Your task to perform on an android device: View the shopping cart on amazon.com. Search for usb-b on amazon.com, select the first entry, add it to the cart, then select checkout. Image 0: 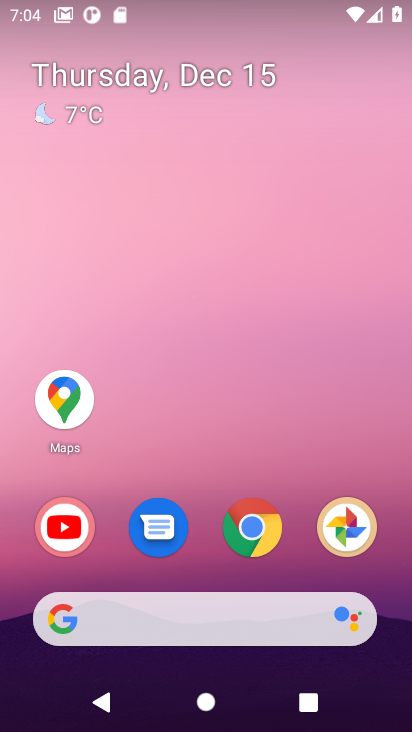
Step 0: click (227, 615)
Your task to perform on an android device: View the shopping cart on amazon.com. Search for usb-b on amazon.com, select the first entry, add it to the cart, then select checkout. Image 1: 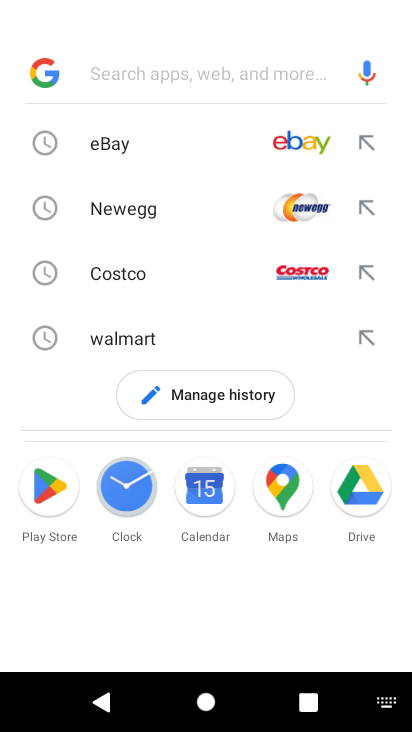
Step 1: click (204, 615)
Your task to perform on an android device: View the shopping cart on amazon.com. Search for usb-b on amazon.com, select the first entry, add it to the cart, then select checkout. Image 2: 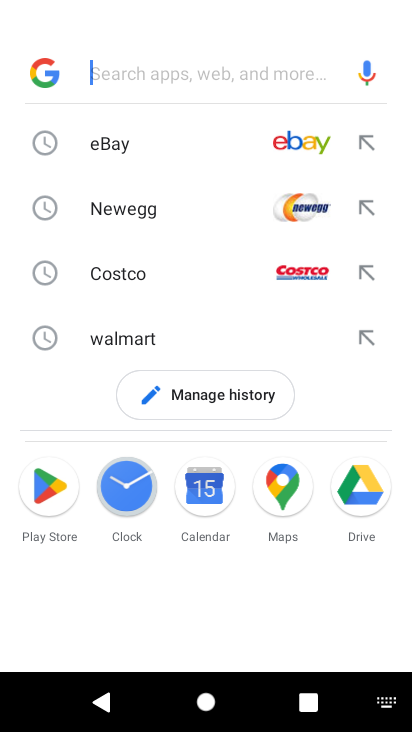
Step 2: type "amazon"
Your task to perform on an android device: View the shopping cart on amazon.com. Search for usb-b on amazon.com, select the first entry, add it to the cart, then select checkout. Image 3: 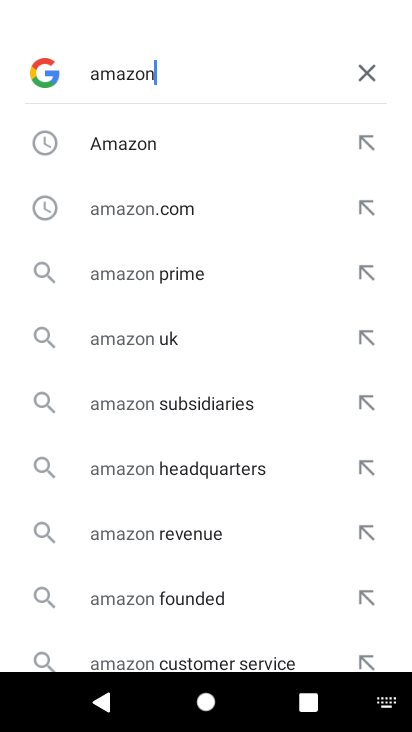
Step 3: click (185, 120)
Your task to perform on an android device: View the shopping cart on amazon.com. Search for usb-b on amazon.com, select the first entry, add it to the cart, then select checkout. Image 4: 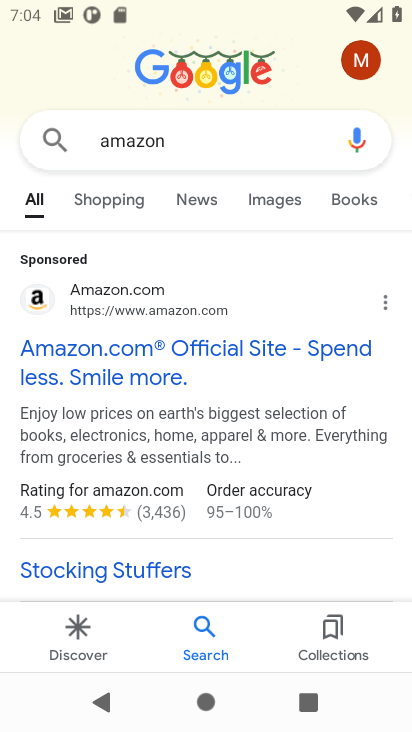
Step 4: click (142, 331)
Your task to perform on an android device: View the shopping cart on amazon.com. Search for usb-b on amazon.com, select the first entry, add it to the cart, then select checkout. Image 5: 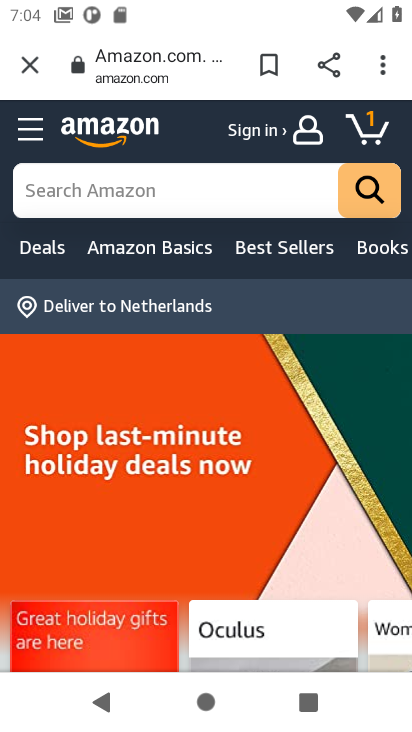
Step 5: click (218, 180)
Your task to perform on an android device: View the shopping cart on amazon.com. Search for usb-b on amazon.com, select the first entry, add it to the cart, then select checkout. Image 6: 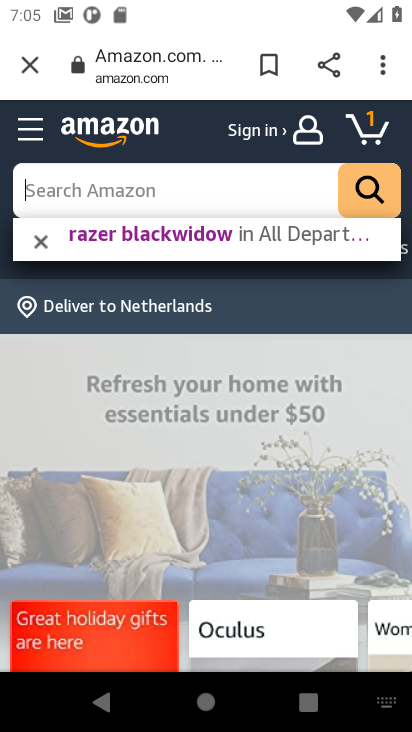
Step 6: type "usb-b"
Your task to perform on an android device: View the shopping cart on amazon.com. Search for usb-b on amazon.com, select the first entry, add it to the cart, then select checkout. Image 7: 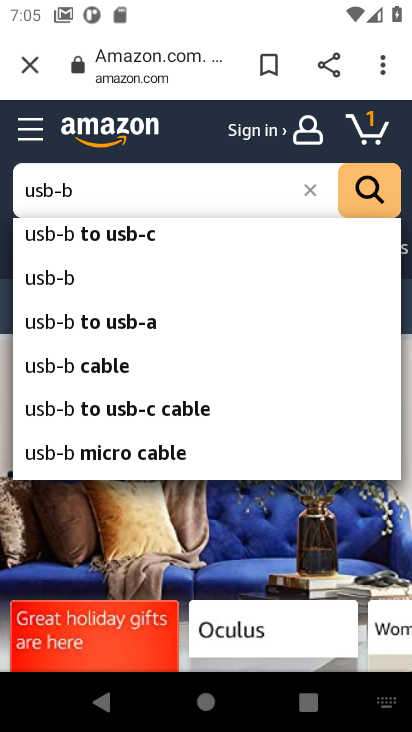
Step 7: click (366, 197)
Your task to perform on an android device: View the shopping cart on amazon.com. Search for usb-b on amazon.com, select the first entry, add it to the cart, then select checkout. Image 8: 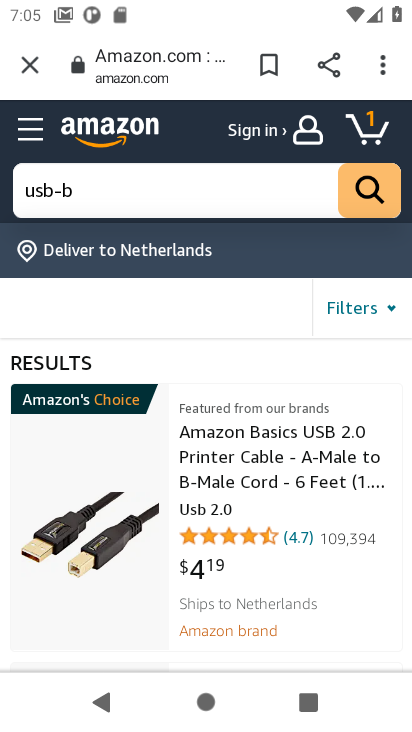
Step 8: click (279, 521)
Your task to perform on an android device: View the shopping cart on amazon.com. Search for usb-b on amazon.com, select the first entry, add it to the cart, then select checkout. Image 9: 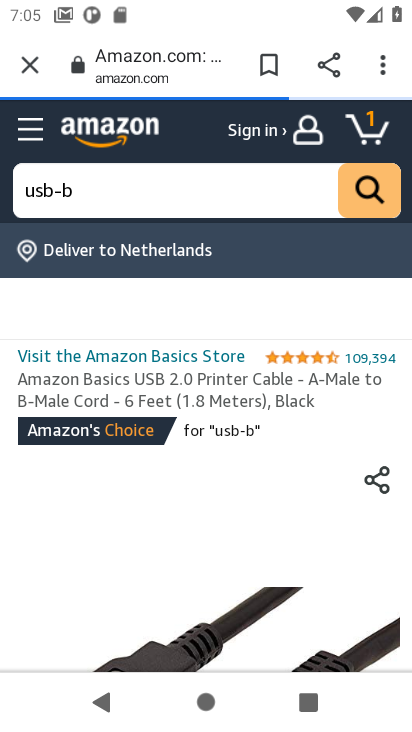
Step 9: drag from (221, 587) to (272, 281)
Your task to perform on an android device: View the shopping cart on amazon.com. Search for usb-b on amazon.com, select the first entry, add it to the cart, then select checkout. Image 10: 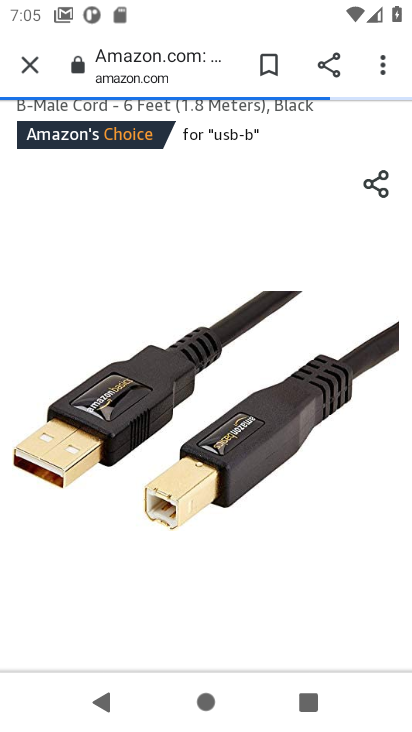
Step 10: drag from (271, 479) to (234, 110)
Your task to perform on an android device: View the shopping cart on amazon.com. Search for usb-b on amazon.com, select the first entry, add it to the cart, then select checkout. Image 11: 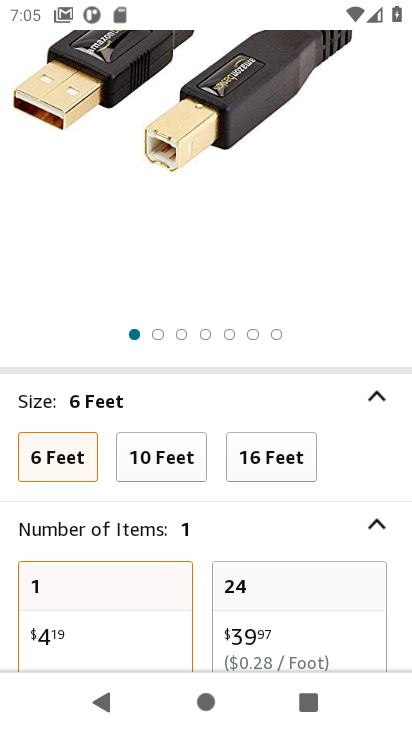
Step 11: drag from (262, 498) to (274, 8)
Your task to perform on an android device: View the shopping cart on amazon.com. Search for usb-b on amazon.com, select the first entry, add it to the cart, then select checkout. Image 12: 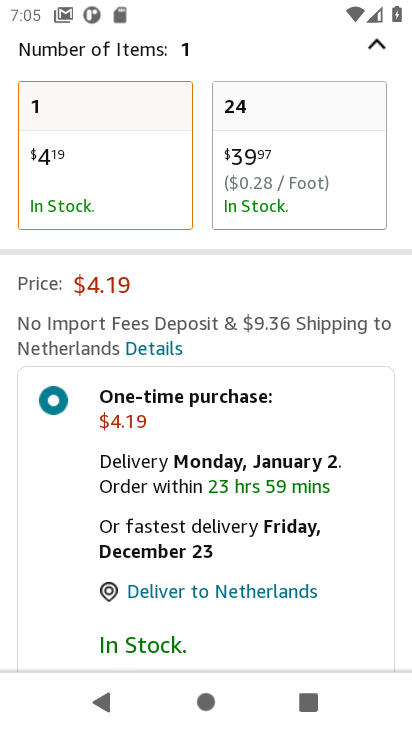
Step 12: drag from (283, 483) to (288, 17)
Your task to perform on an android device: View the shopping cart on amazon.com. Search for usb-b on amazon.com, select the first entry, add it to the cart, then select checkout. Image 13: 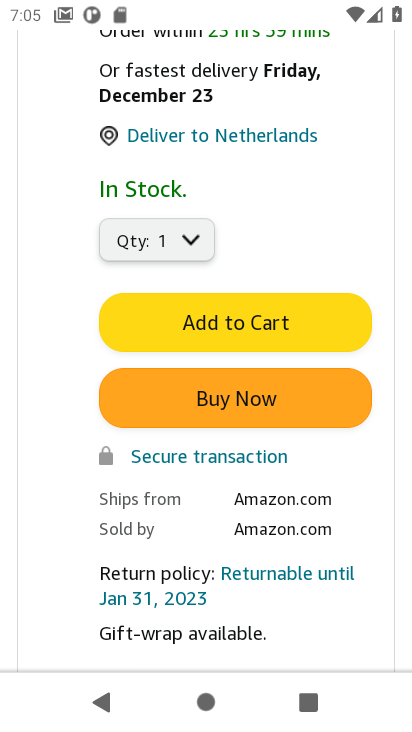
Step 13: click (300, 307)
Your task to perform on an android device: View the shopping cart on amazon.com. Search for usb-b on amazon.com, select the first entry, add it to the cart, then select checkout. Image 14: 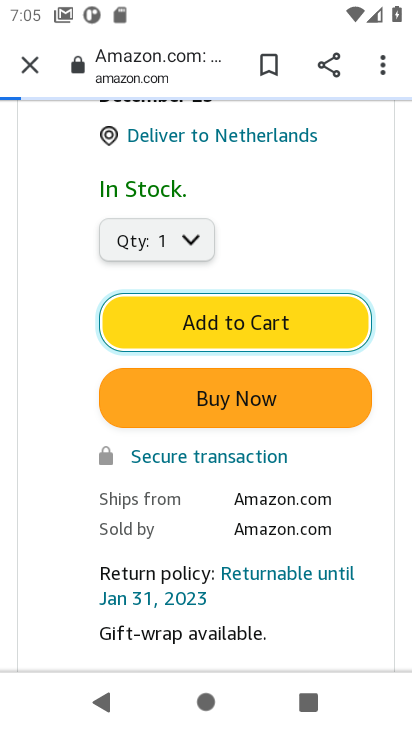
Step 14: task complete